Your task to perform on an android device: set default search engine in the chrome app Image 0: 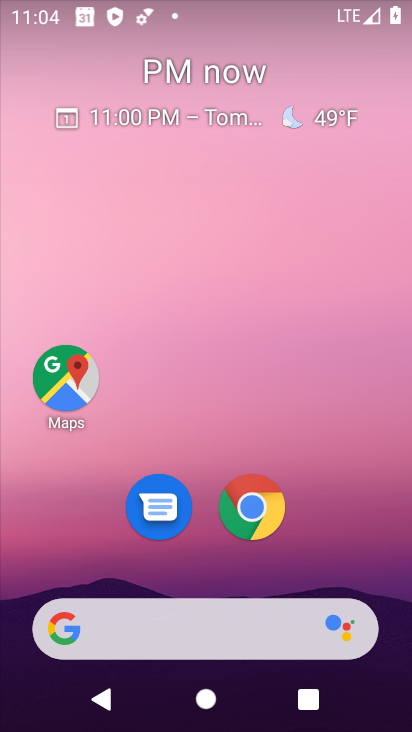
Step 0: click (246, 509)
Your task to perform on an android device: set default search engine in the chrome app Image 1: 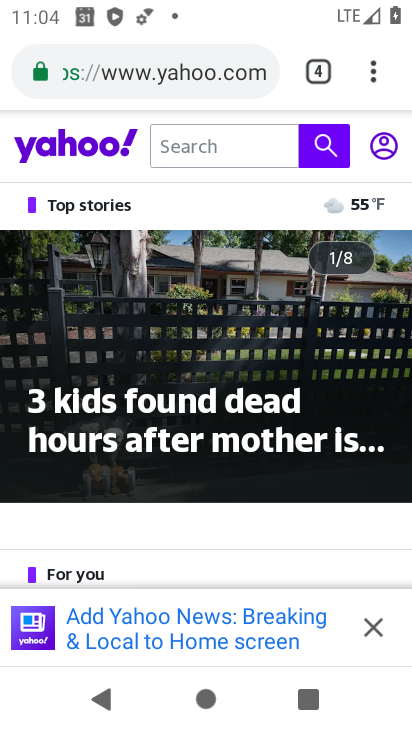
Step 1: click (381, 65)
Your task to perform on an android device: set default search engine in the chrome app Image 2: 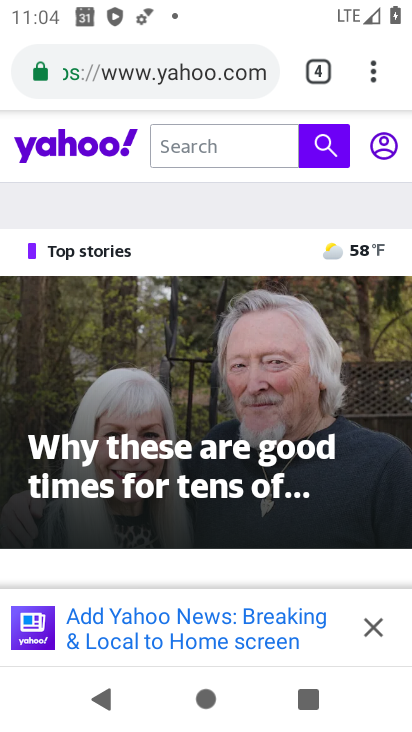
Step 2: click (381, 70)
Your task to perform on an android device: set default search engine in the chrome app Image 3: 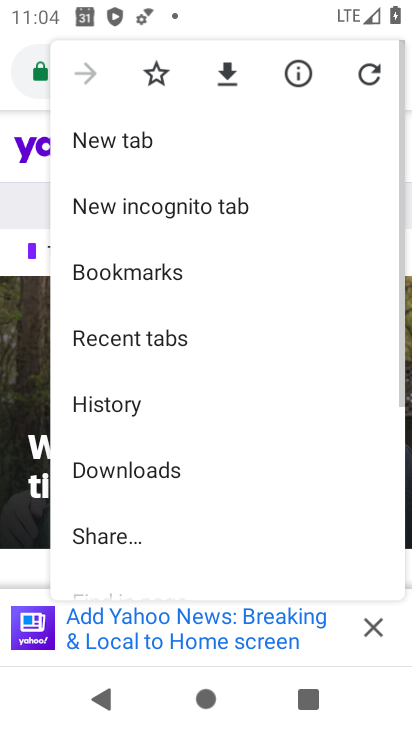
Step 3: drag from (122, 506) to (177, 192)
Your task to perform on an android device: set default search engine in the chrome app Image 4: 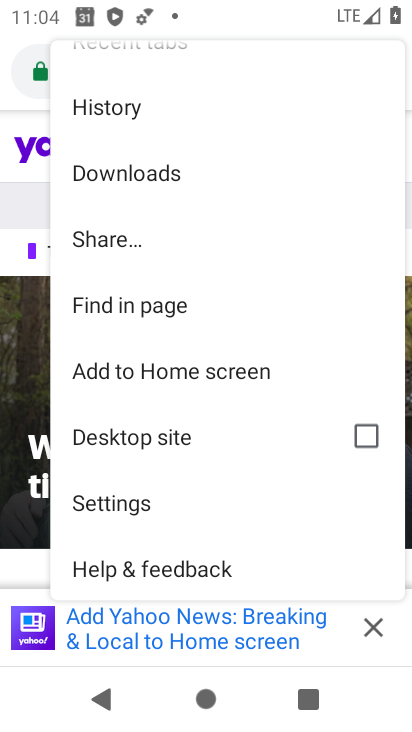
Step 4: click (145, 485)
Your task to perform on an android device: set default search engine in the chrome app Image 5: 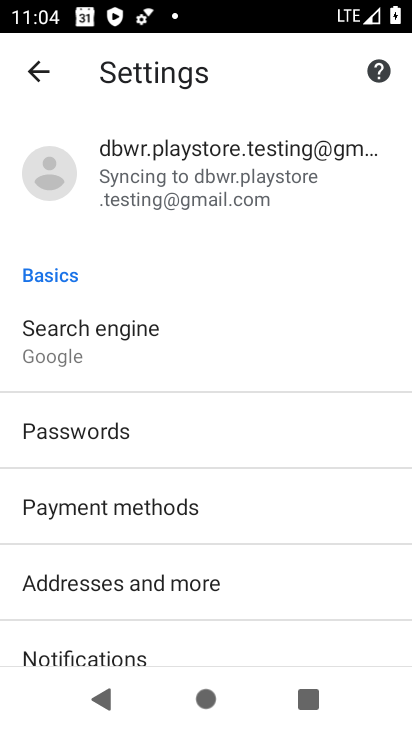
Step 5: click (176, 352)
Your task to perform on an android device: set default search engine in the chrome app Image 6: 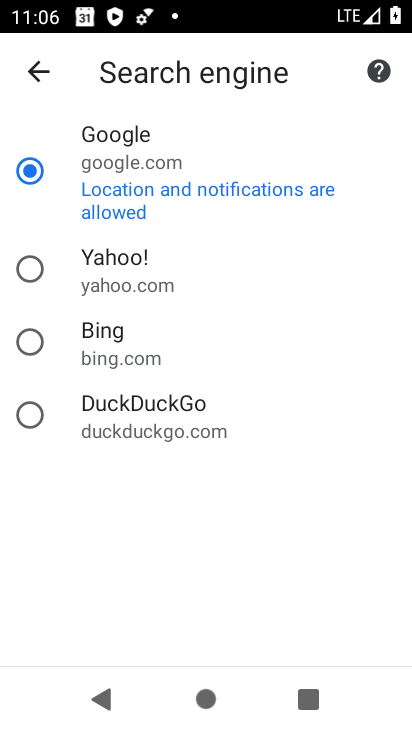
Step 6: task complete